Your task to perform on an android device: Go to Reddit.com Image 0: 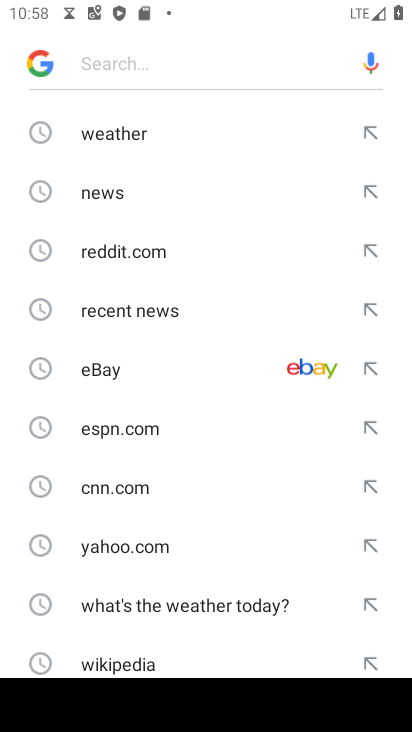
Step 0: click (140, 240)
Your task to perform on an android device: Go to Reddit.com Image 1: 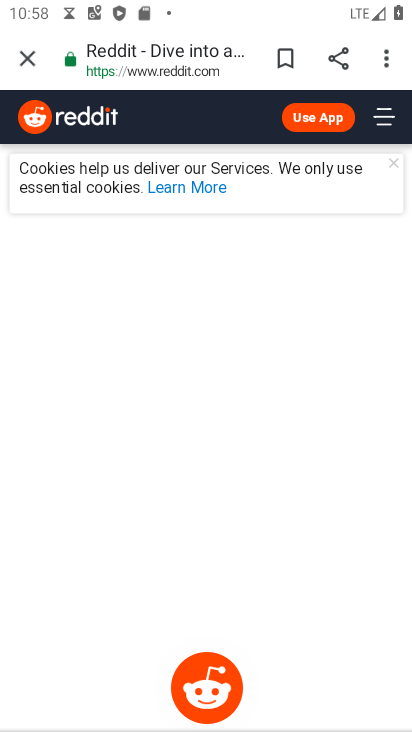
Step 1: task complete